Your task to perform on an android device: change the clock display to show seconds Image 0: 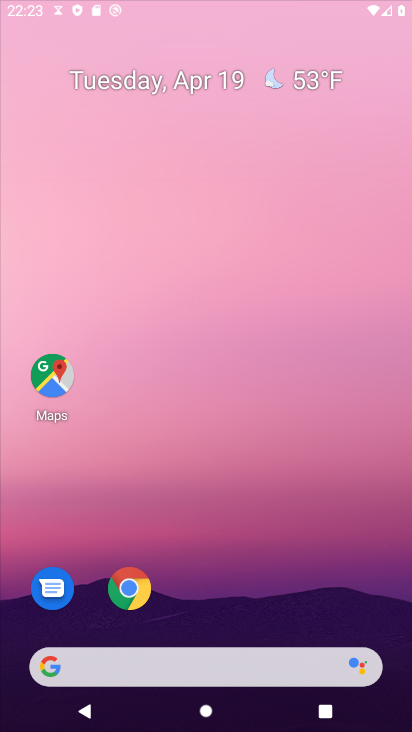
Step 0: drag from (221, 143) to (226, 67)
Your task to perform on an android device: change the clock display to show seconds Image 1: 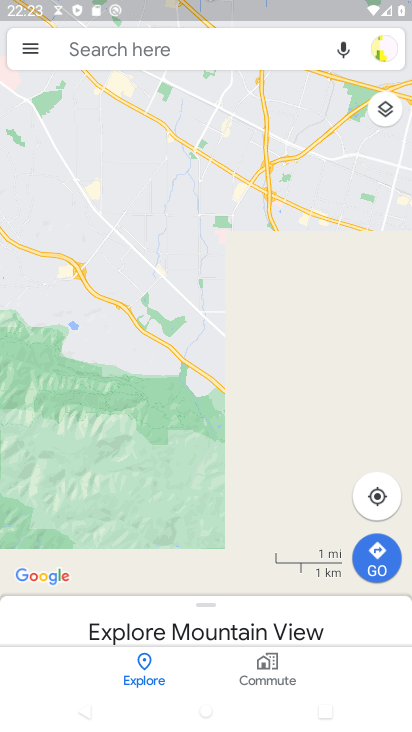
Step 1: press home button
Your task to perform on an android device: change the clock display to show seconds Image 2: 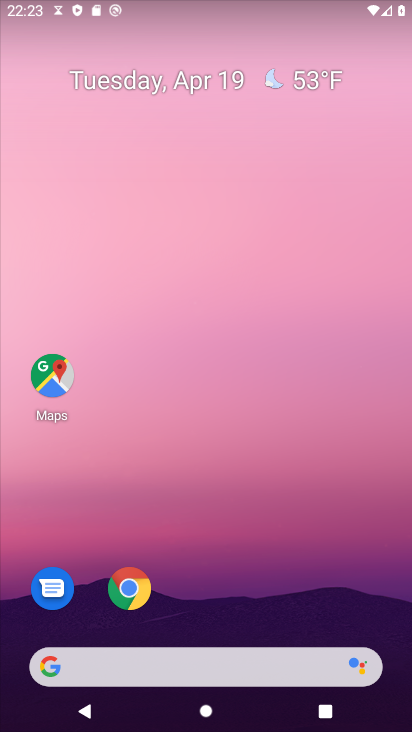
Step 2: drag from (251, 558) to (260, 48)
Your task to perform on an android device: change the clock display to show seconds Image 3: 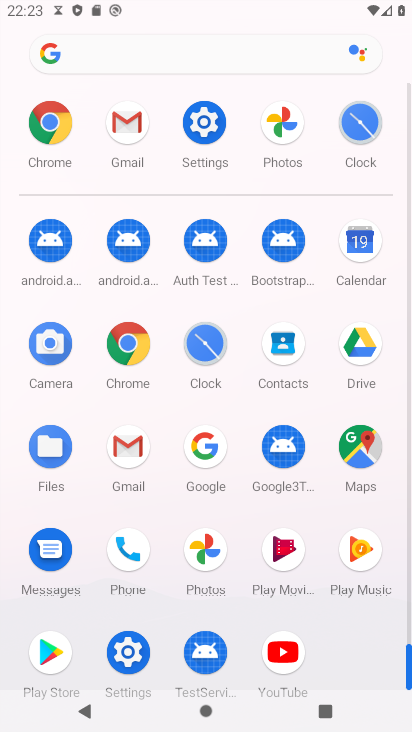
Step 3: click (361, 124)
Your task to perform on an android device: change the clock display to show seconds Image 4: 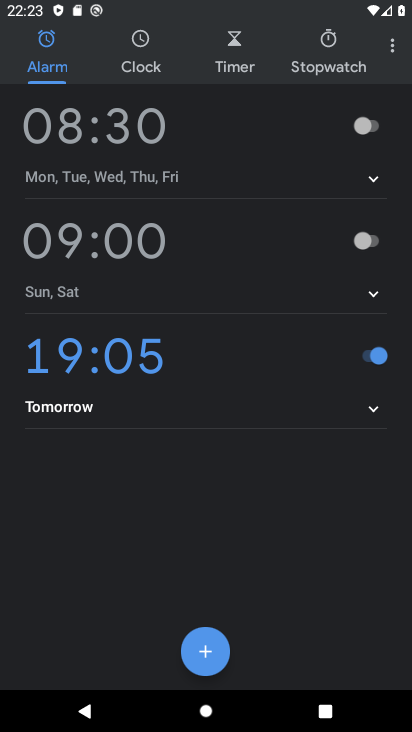
Step 4: click (396, 46)
Your task to perform on an android device: change the clock display to show seconds Image 5: 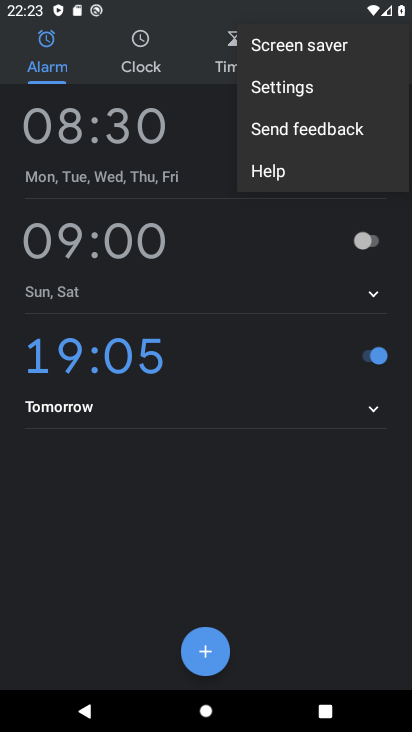
Step 5: click (302, 94)
Your task to perform on an android device: change the clock display to show seconds Image 6: 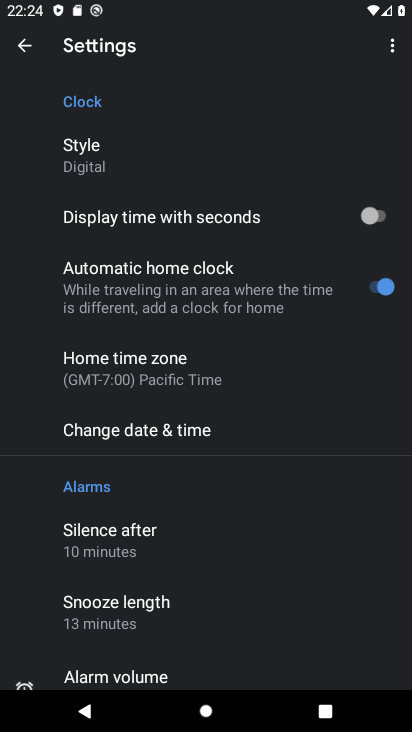
Step 6: click (372, 218)
Your task to perform on an android device: change the clock display to show seconds Image 7: 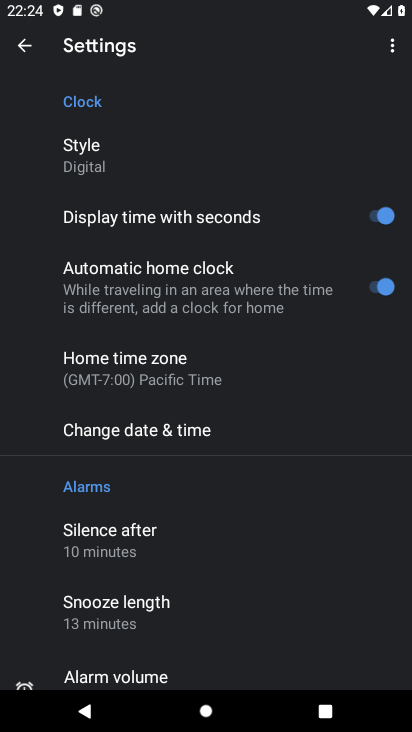
Step 7: task complete